Your task to perform on an android device: What's the weather today? Image 0: 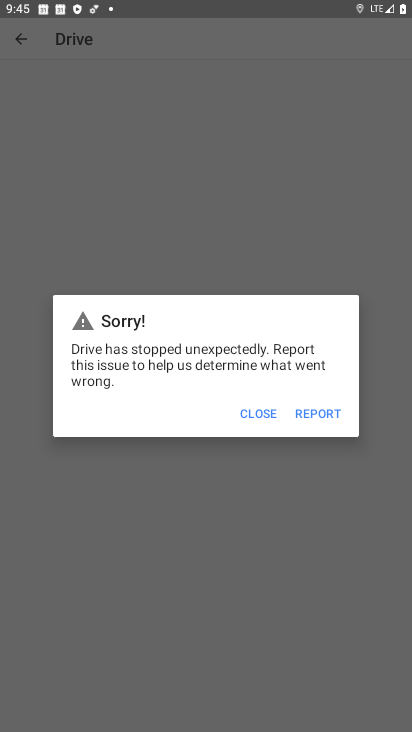
Step 0: press home button
Your task to perform on an android device: What's the weather today? Image 1: 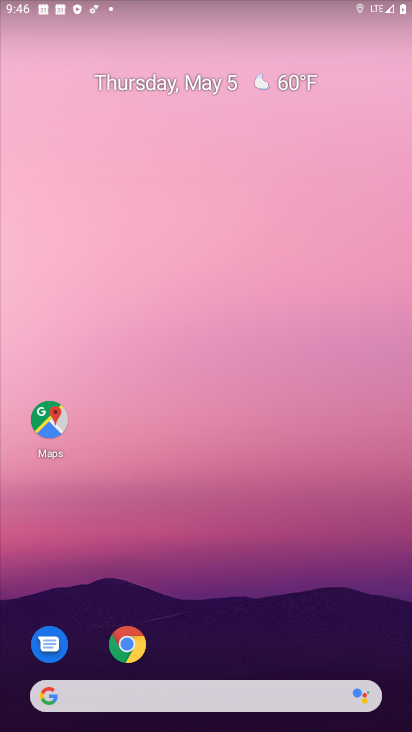
Step 1: drag from (190, 627) to (220, 171)
Your task to perform on an android device: What's the weather today? Image 2: 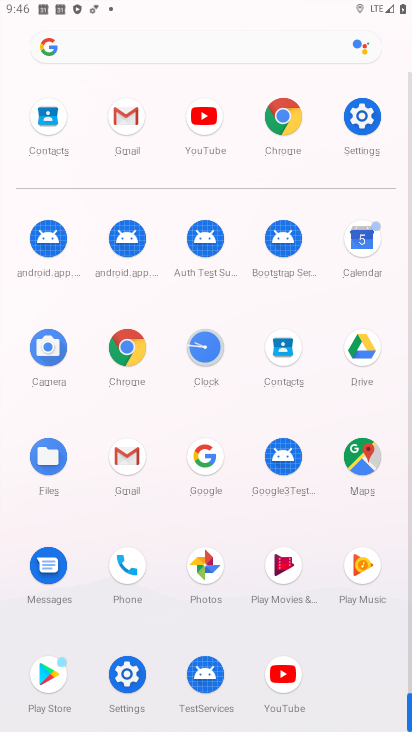
Step 2: click (228, 44)
Your task to perform on an android device: What's the weather today? Image 3: 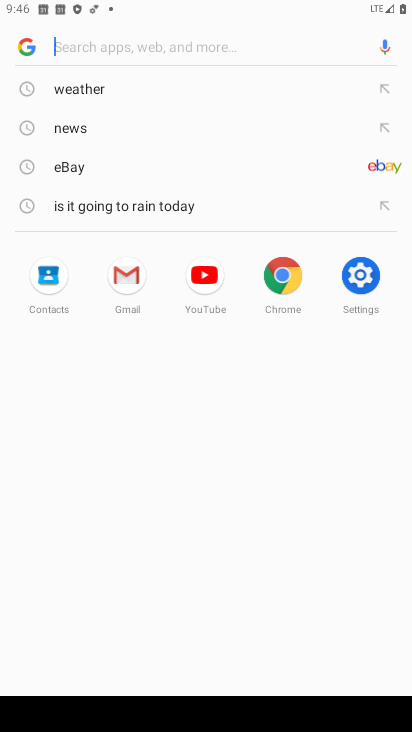
Step 3: type "weather today"
Your task to perform on an android device: What's the weather today? Image 4: 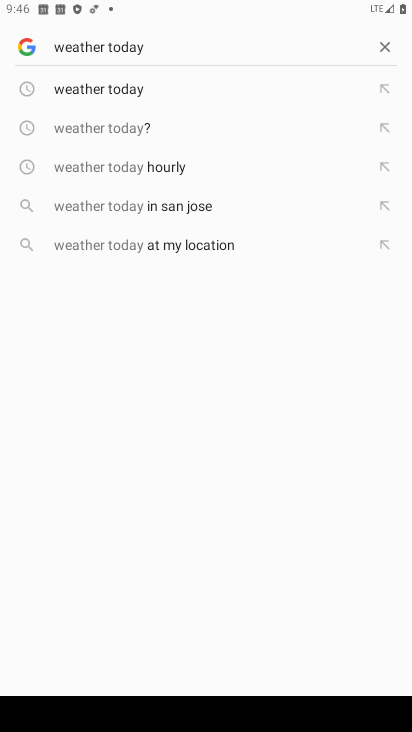
Step 4: click (133, 93)
Your task to perform on an android device: What's the weather today? Image 5: 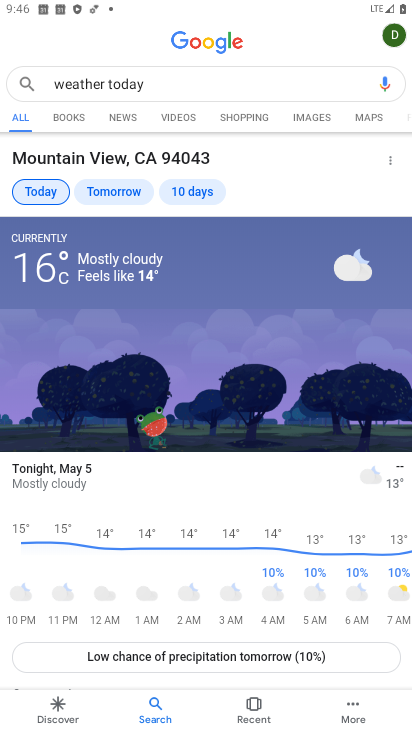
Step 5: task complete